Your task to perform on an android device: find snoozed emails in the gmail app Image 0: 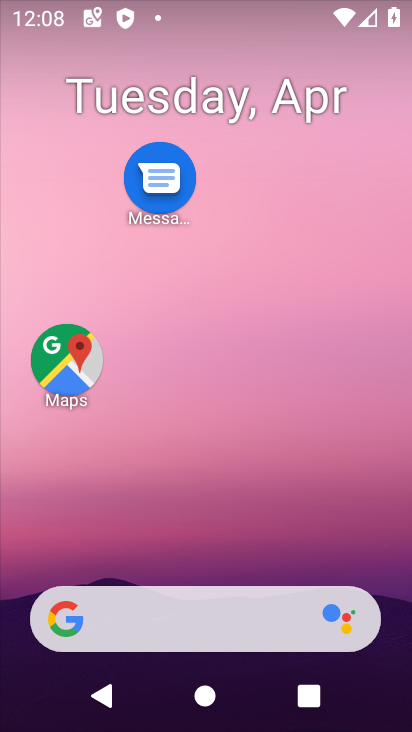
Step 0: drag from (205, 720) to (216, 42)
Your task to perform on an android device: find snoozed emails in the gmail app Image 1: 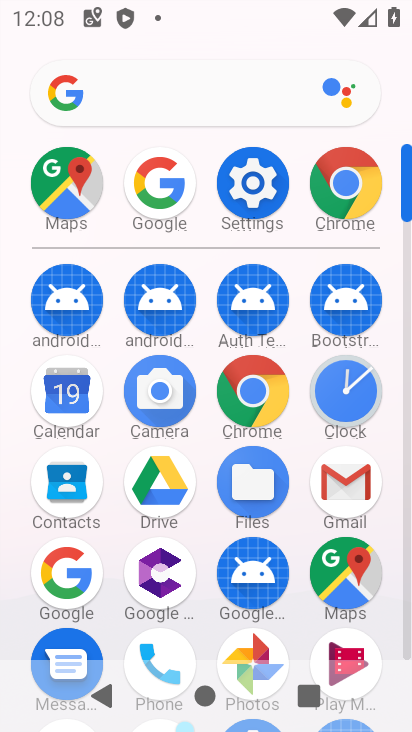
Step 1: click (332, 487)
Your task to perform on an android device: find snoozed emails in the gmail app Image 2: 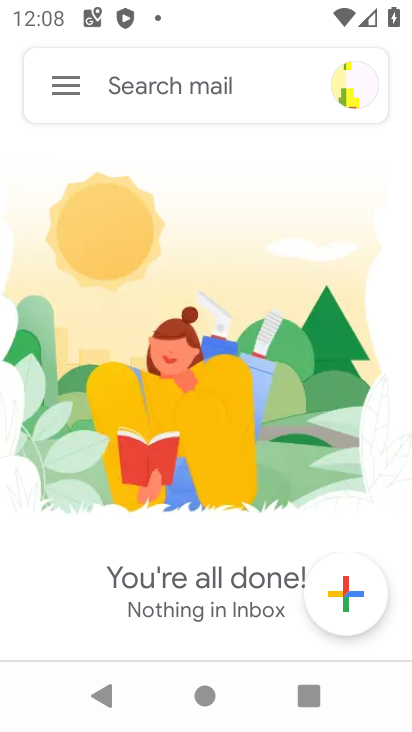
Step 2: click (68, 86)
Your task to perform on an android device: find snoozed emails in the gmail app Image 3: 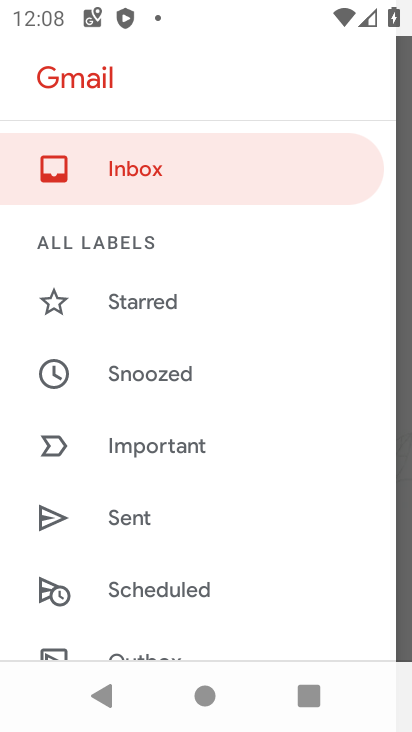
Step 3: click (162, 377)
Your task to perform on an android device: find snoozed emails in the gmail app Image 4: 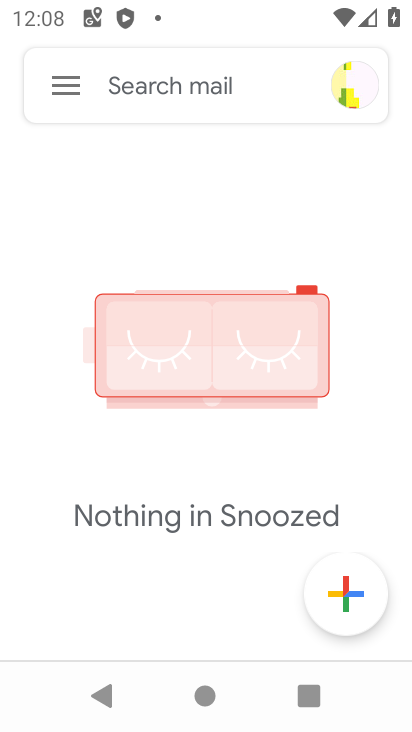
Step 4: task complete